Your task to perform on an android device: change text size in settings app Image 0: 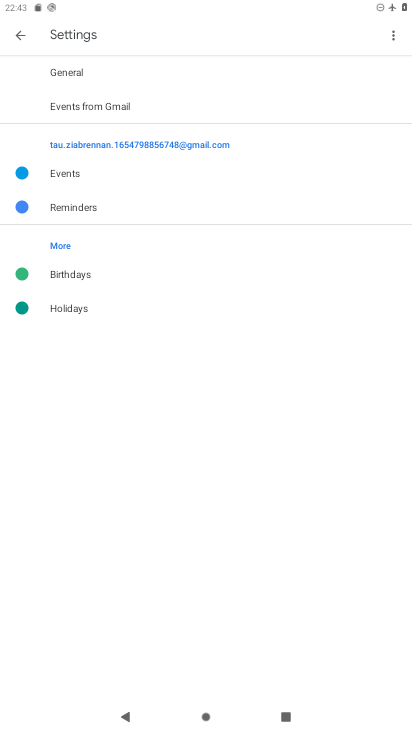
Step 0: press home button
Your task to perform on an android device: change text size in settings app Image 1: 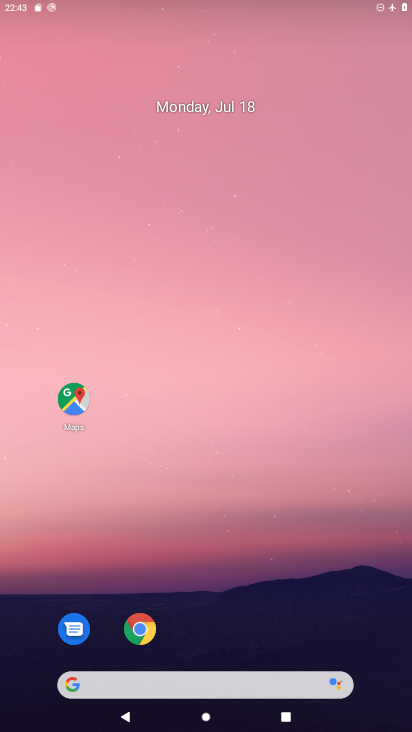
Step 1: drag from (268, 611) to (261, 95)
Your task to perform on an android device: change text size in settings app Image 2: 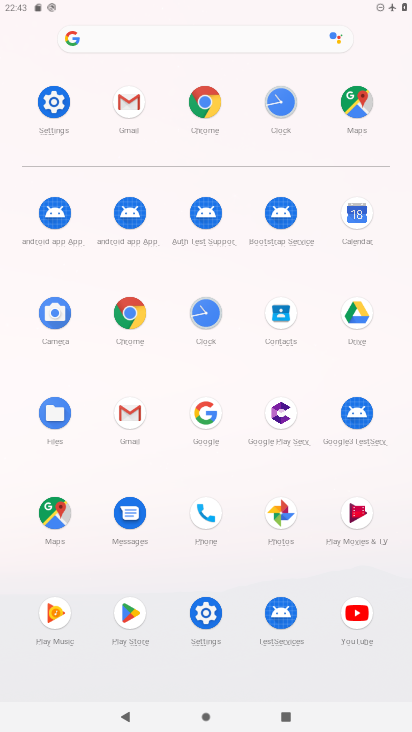
Step 2: click (59, 103)
Your task to perform on an android device: change text size in settings app Image 3: 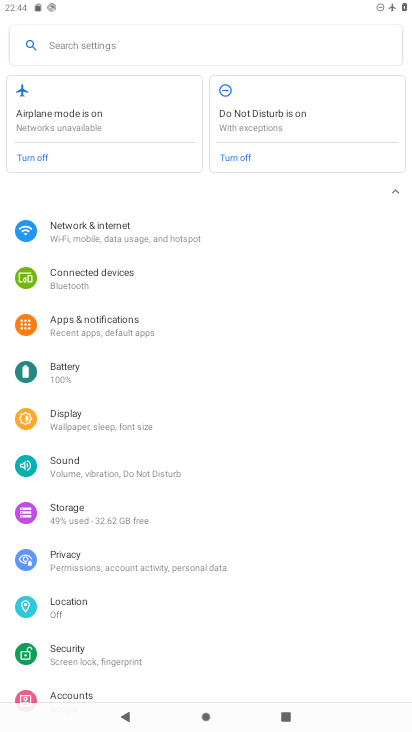
Step 3: click (65, 412)
Your task to perform on an android device: change text size in settings app Image 4: 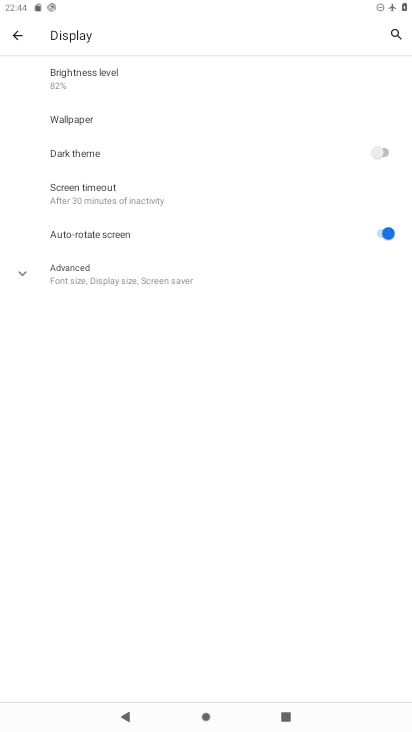
Step 4: click (116, 283)
Your task to perform on an android device: change text size in settings app Image 5: 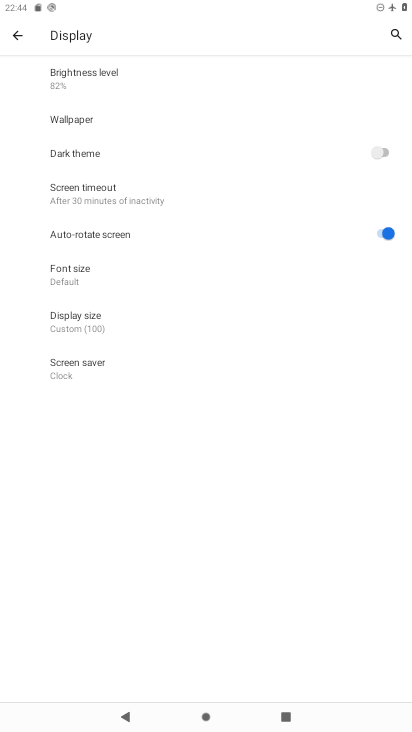
Step 5: click (84, 282)
Your task to perform on an android device: change text size in settings app Image 6: 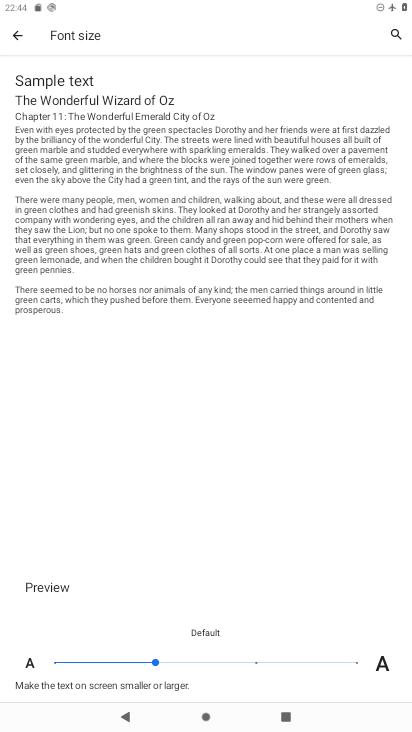
Step 6: click (55, 668)
Your task to perform on an android device: change text size in settings app Image 7: 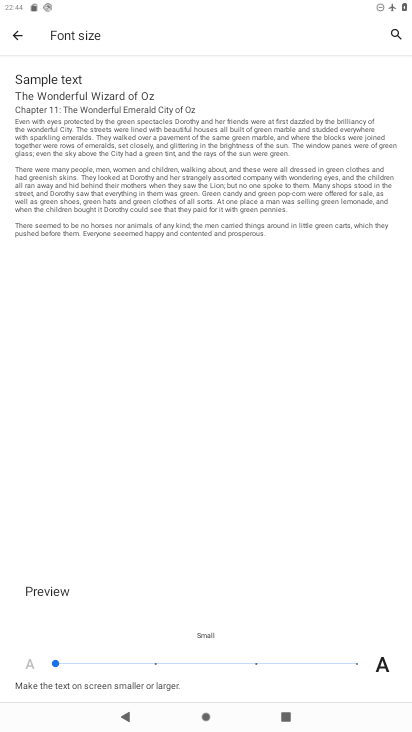
Step 7: task complete